Your task to perform on an android device: Open location settings Image 0: 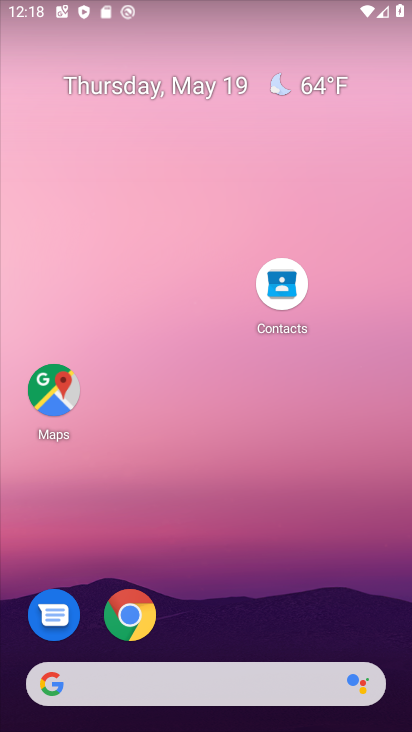
Step 0: drag from (92, 639) to (100, 241)
Your task to perform on an android device: Open location settings Image 1: 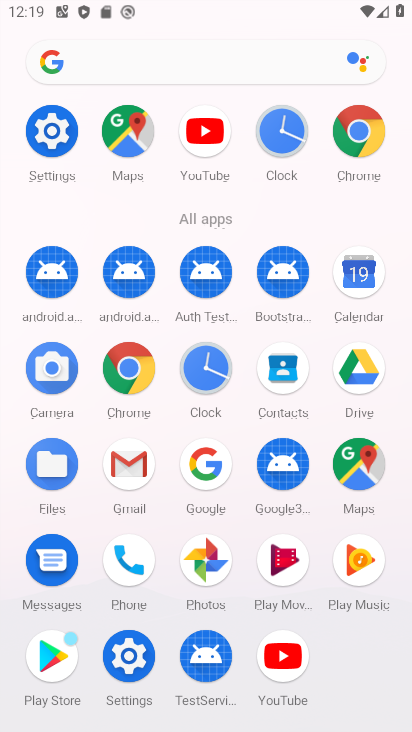
Step 1: click (66, 139)
Your task to perform on an android device: Open location settings Image 2: 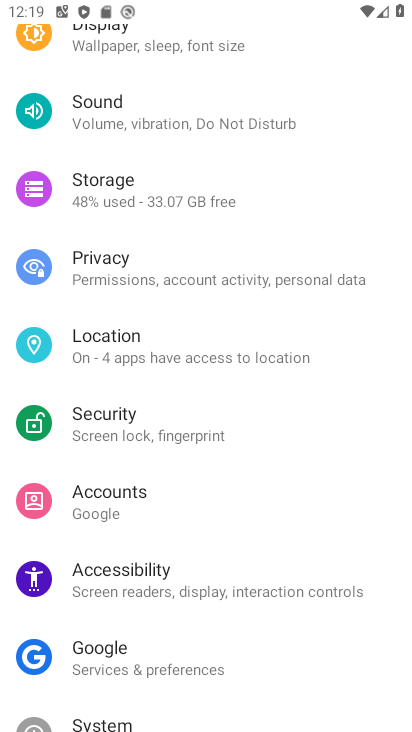
Step 2: click (182, 353)
Your task to perform on an android device: Open location settings Image 3: 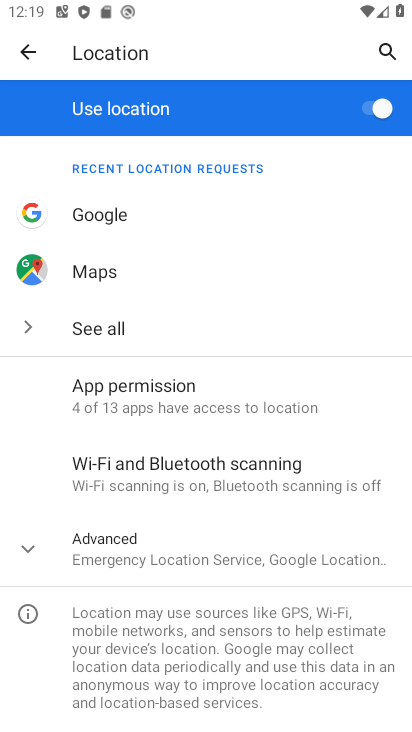
Step 3: task complete